Your task to perform on an android device: Open the web browser Image 0: 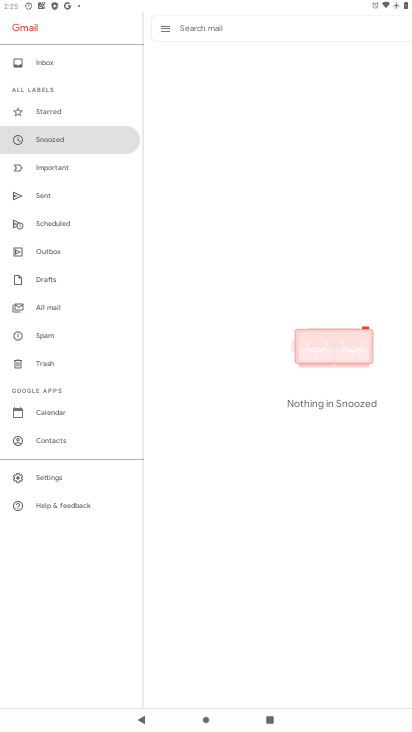
Step 0: press home button
Your task to perform on an android device: Open the web browser Image 1: 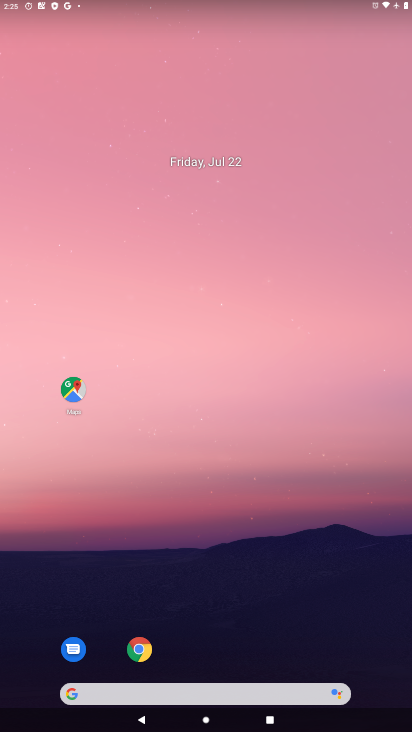
Step 1: drag from (290, 622) to (223, 116)
Your task to perform on an android device: Open the web browser Image 2: 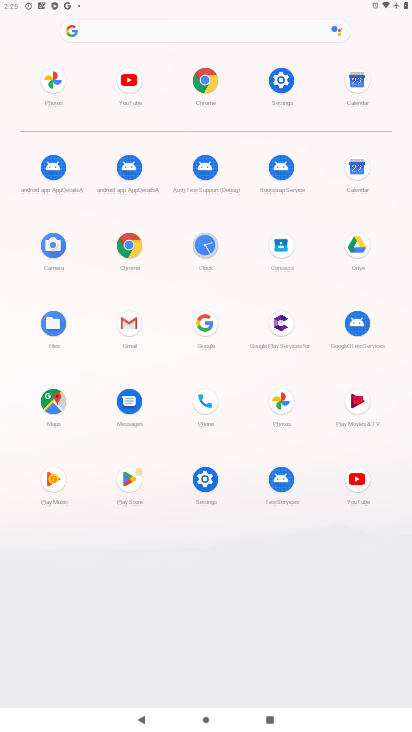
Step 2: click (201, 82)
Your task to perform on an android device: Open the web browser Image 3: 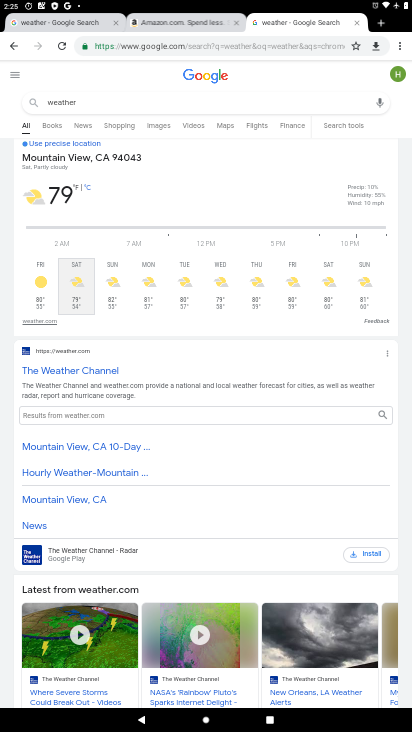
Step 3: task complete